Your task to perform on an android device: toggle pop-ups in chrome Image 0: 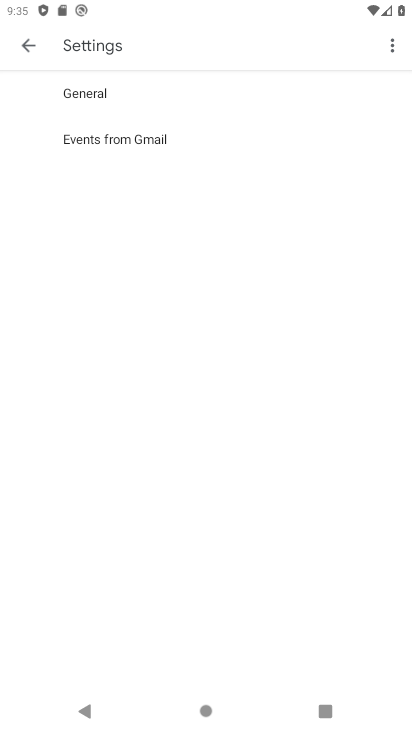
Step 0: click (36, 48)
Your task to perform on an android device: toggle pop-ups in chrome Image 1: 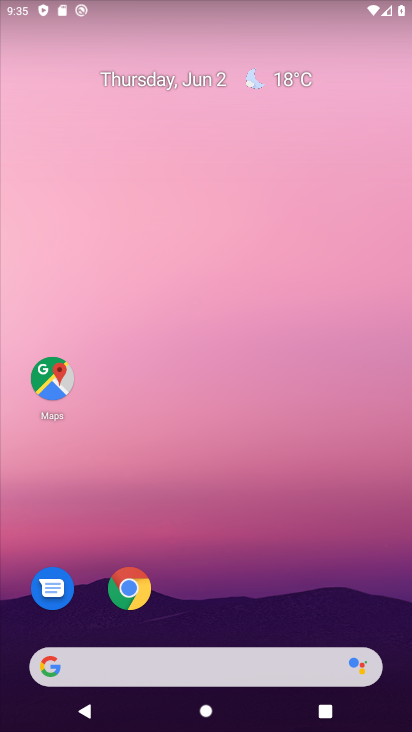
Step 1: drag from (254, 694) to (164, 148)
Your task to perform on an android device: toggle pop-ups in chrome Image 2: 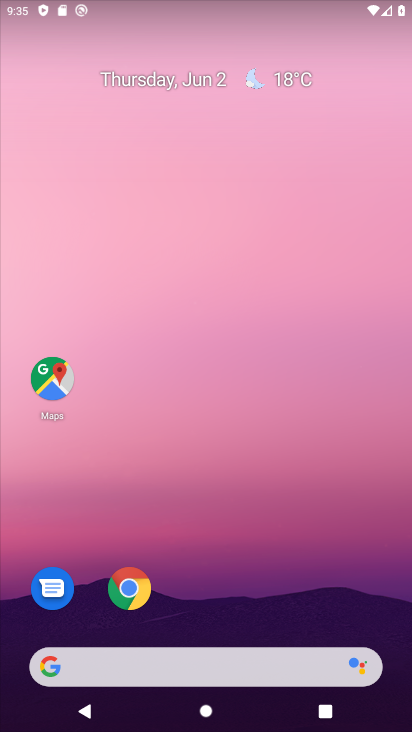
Step 2: drag from (293, 709) to (231, 310)
Your task to perform on an android device: toggle pop-ups in chrome Image 3: 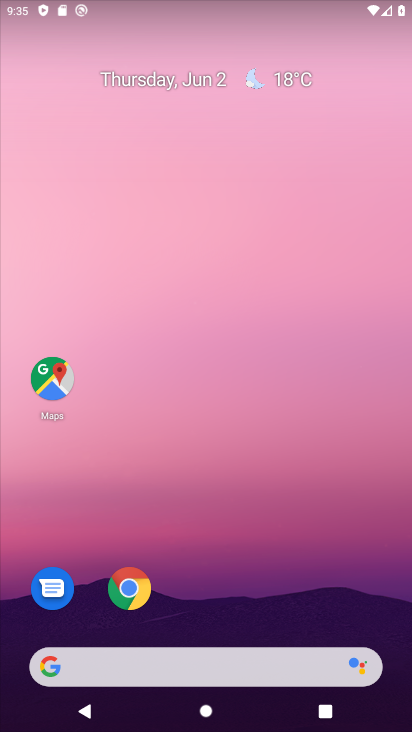
Step 3: drag from (269, 669) to (221, 231)
Your task to perform on an android device: toggle pop-ups in chrome Image 4: 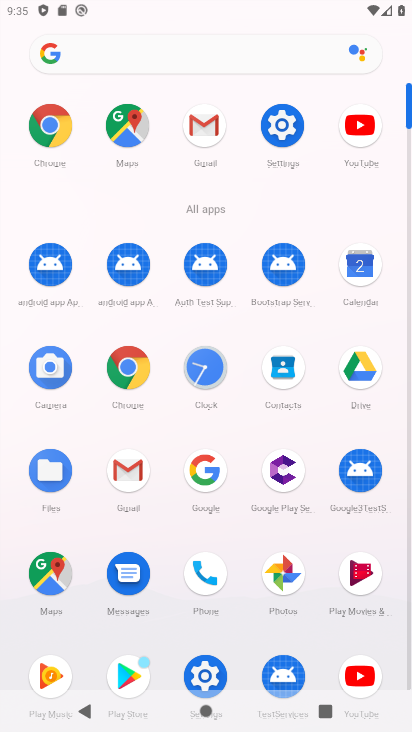
Step 4: click (55, 116)
Your task to perform on an android device: toggle pop-ups in chrome Image 5: 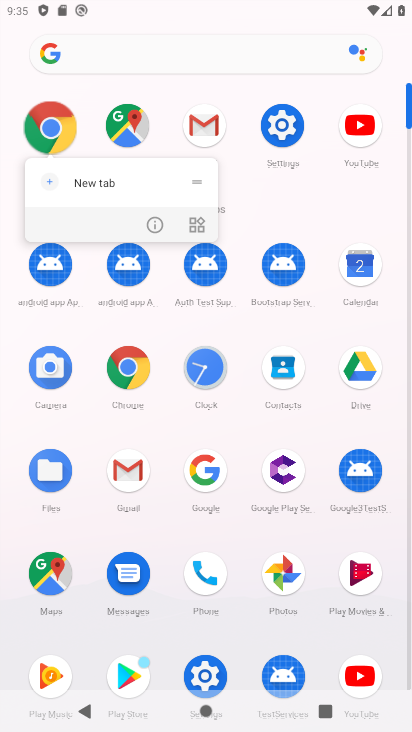
Step 5: click (56, 116)
Your task to perform on an android device: toggle pop-ups in chrome Image 6: 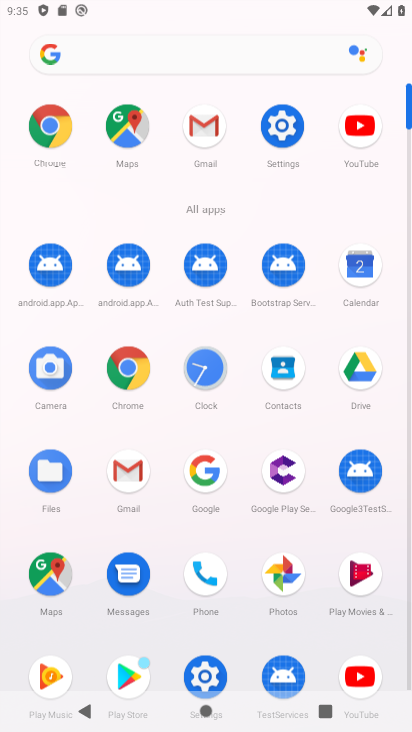
Step 6: click (59, 124)
Your task to perform on an android device: toggle pop-ups in chrome Image 7: 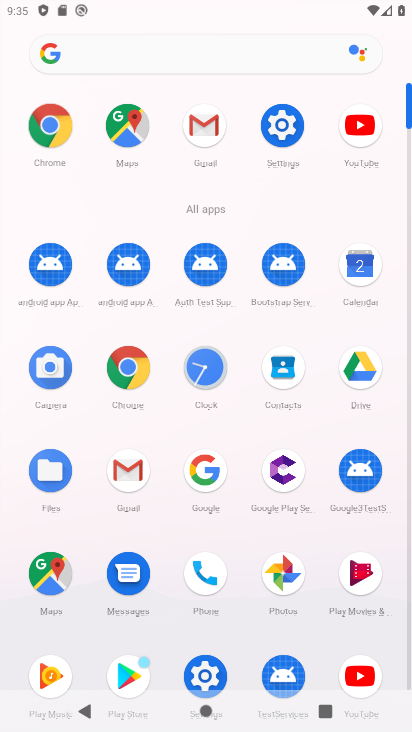
Step 7: click (57, 123)
Your task to perform on an android device: toggle pop-ups in chrome Image 8: 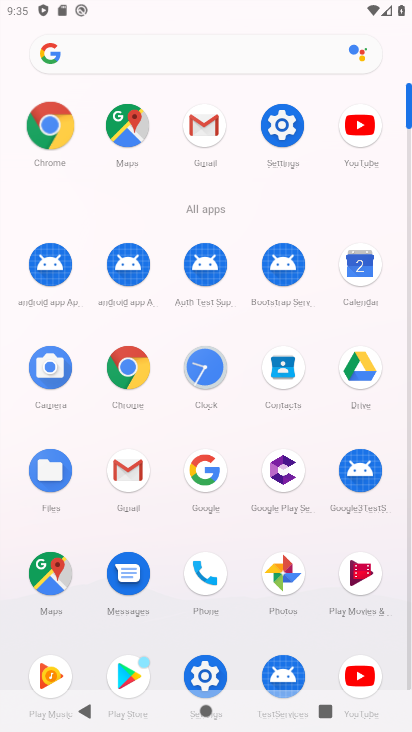
Step 8: click (57, 122)
Your task to perform on an android device: toggle pop-ups in chrome Image 9: 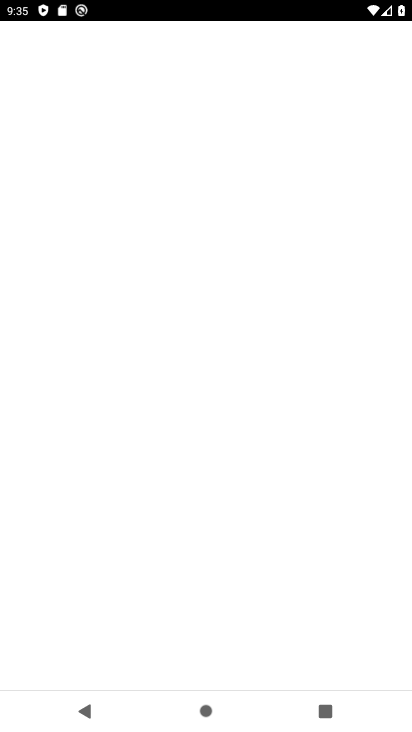
Step 9: click (56, 122)
Your task to perform on an android device: toggle pop-ups in chrome Image 10: 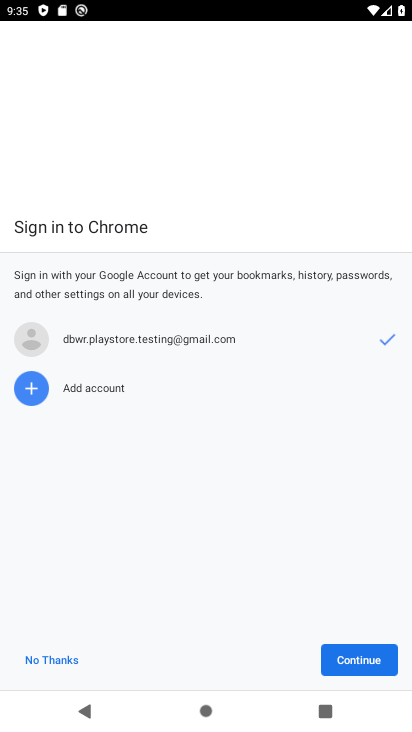
Step 10: click (55, 118)
Your task to perform on an android device: toggle pop-ups in chrome Image 11: 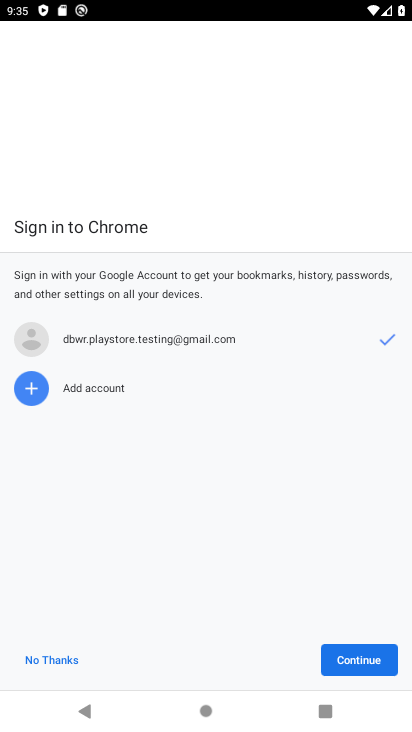
Step 11: click (373, 646)
Your task to perform on an android device: toggle pop-ups in chrome Image 12: 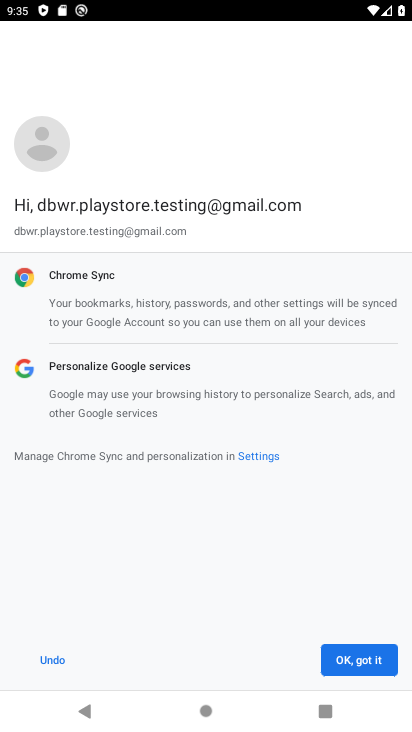
Step 12: click (361, 655)
Your task to perform on an android device: toggle pop-ups in chrome Image 13: 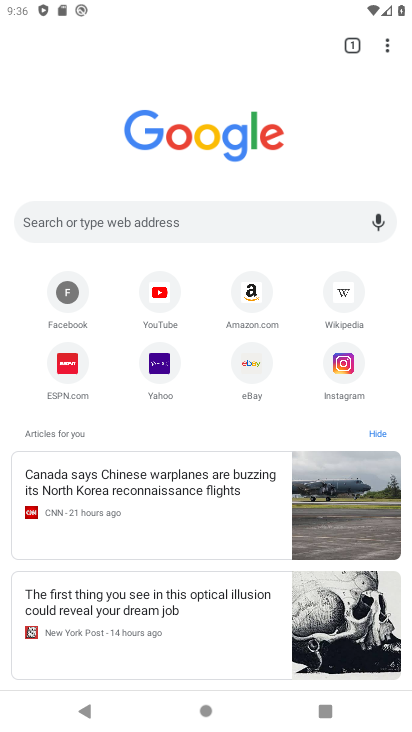
Step 13: drag from (384, 48) to (227, 387)
Your task to perform on an android device: toggle pop-ups in chrome Image 14: 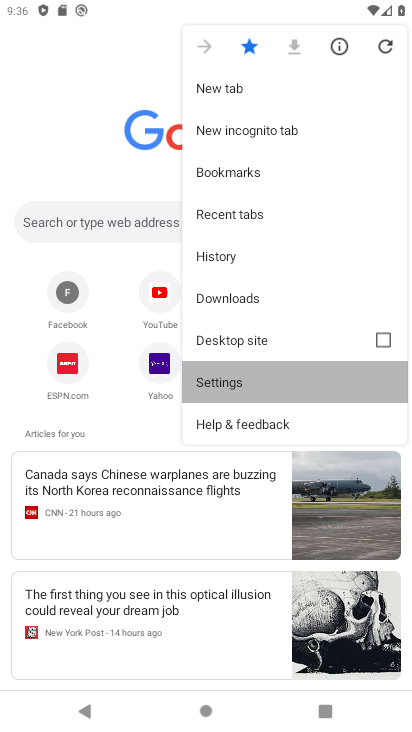
Step 14: click (227, 387)
Your task to perform on an android device: toggle pop-ups in chrome Image 15: 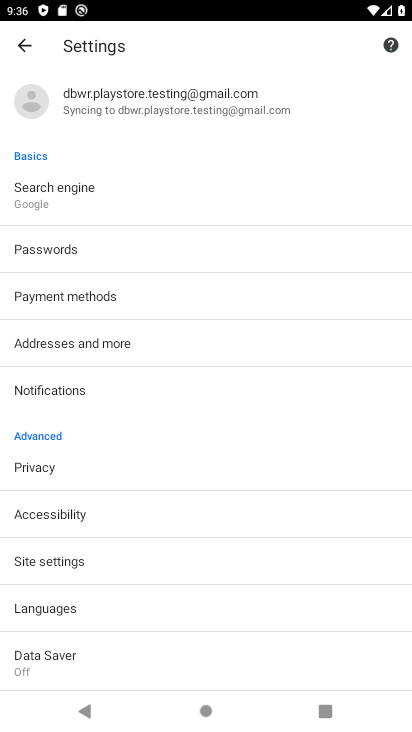
Step 15: click (52, 561)
Your task to perform on an android device: toggle pop-ups in chrome Image 16: 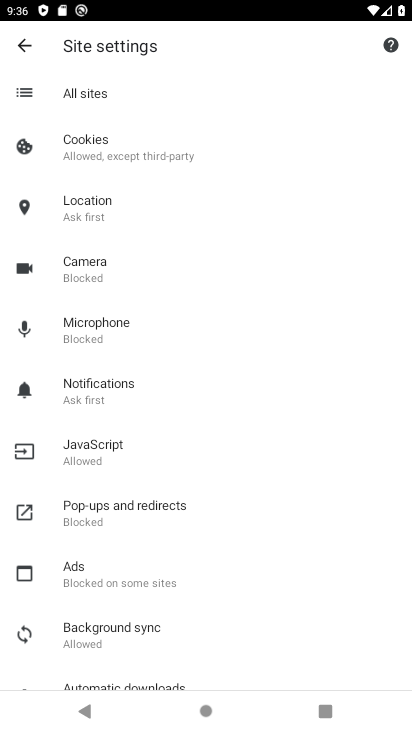
Step 16: click (91, 505)
Your task to perform on an android device: toggle pop-ups in chrome Image 17: 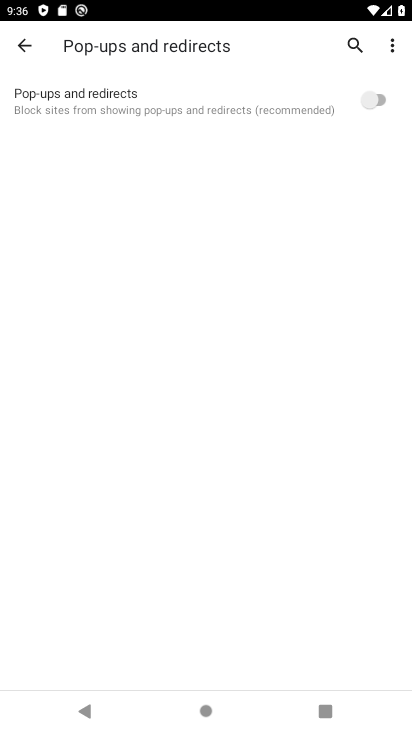
Step 17: click (369, 101)
Your task to perform on an android device: toggle pop-ups in chrome Image 18: 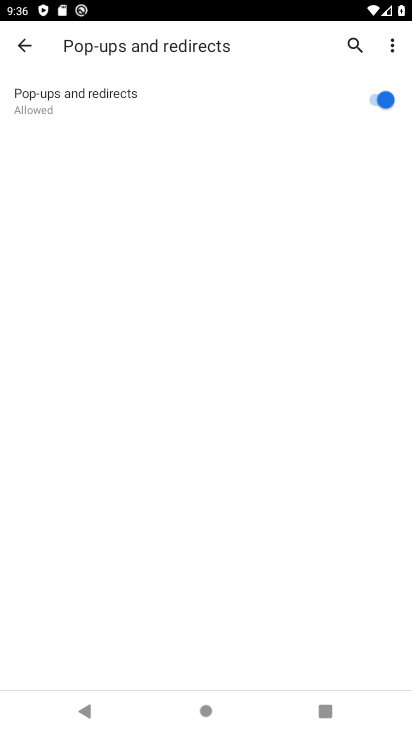
Step 18: press back button
Your task to perform on an android device: toggle pop-ups in chrome Image 19: 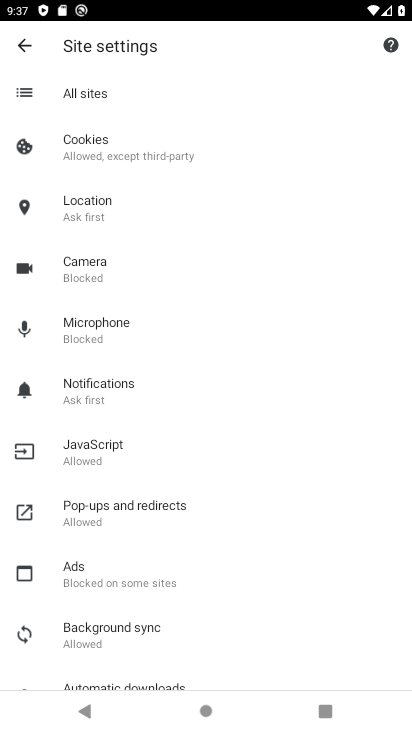
Step 19: click (87, 502)
Your task to perform on an android device: toggle pop-ups in chrome Image 20: 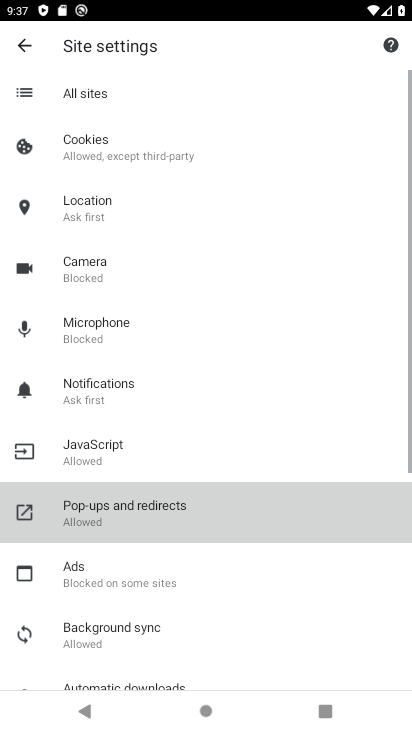
Step 20: click (78, 505)
Your task to perform on an android device: toggle pop-ups in chrome Image 21: 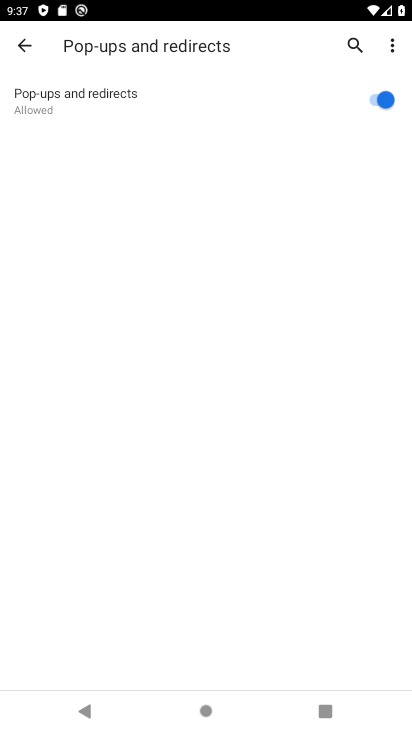
Step 21: click (379, 96)
Your task to perform on an android device: toggle pop-ups in chrome Image 22: 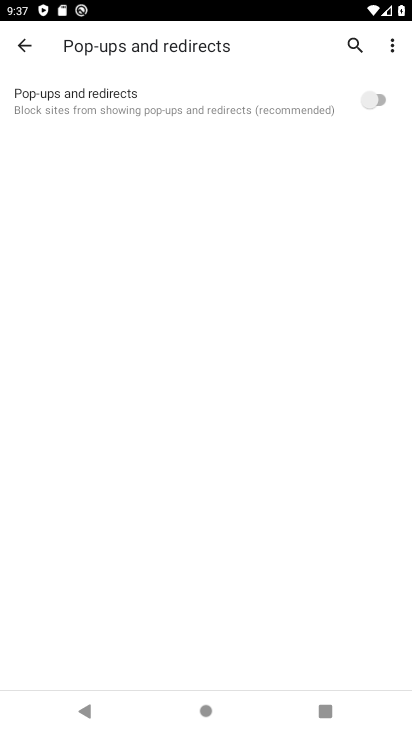
Step 22: task complete